Your task to perform on an android device: change the clock display to show seconds Image 0: 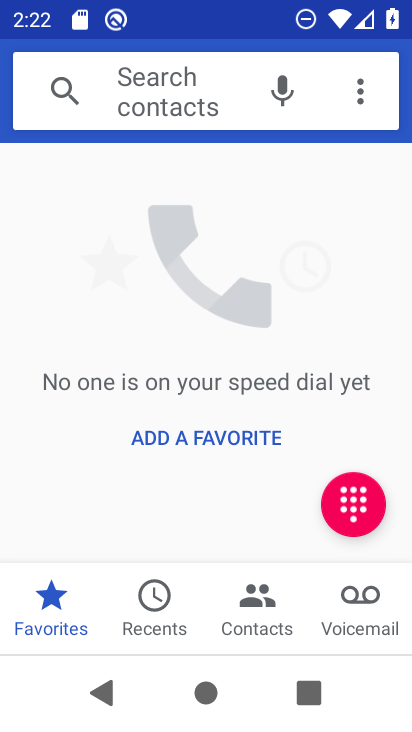
Step 0: press home button
Your task to perform on an android device: change the clock display to show seconds Image 1: 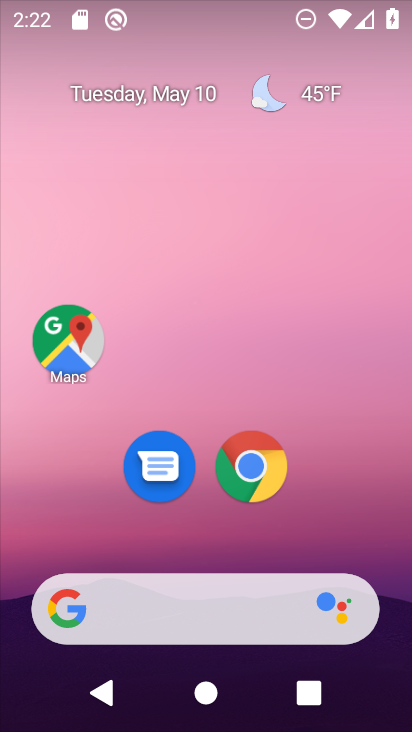
Step 1: drag from (337, 525) to (385, 18)
Your task to perform on an android device: change the clock display to show seconds Image 2: 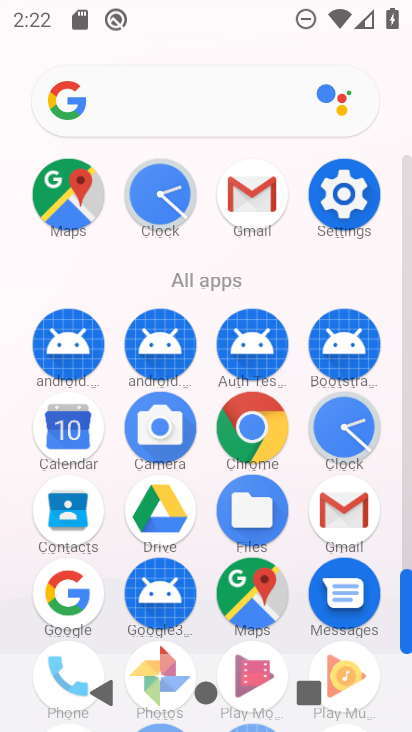
Step 2: click (326, 441)
Your task to perform on an android device: change the clock display to show seconds Image 3: 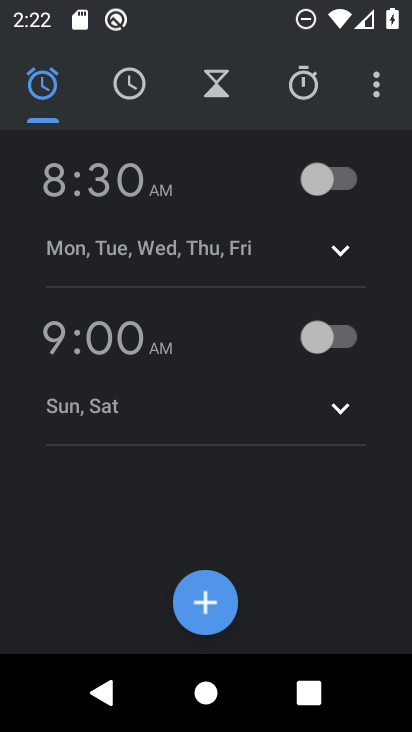
Step 3: click (380, 83)
Your task to perform on an android device: change the clock display to show seconds Image 4: 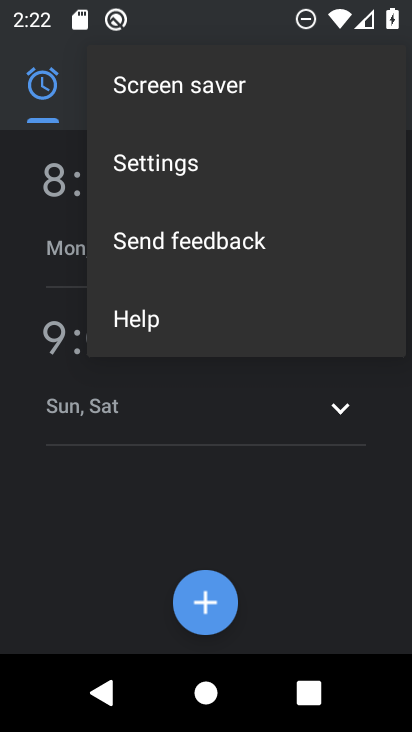
Step 4: click (246, 150)
Your task to perform on an android device: change the clock display to show seconds Image 5: 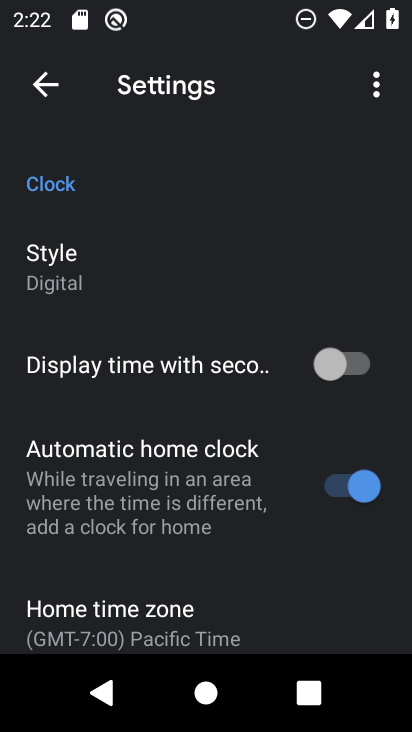
Step 5: click (358, 347)
Your task to perform on an android device: change the clock display to show seconds Image 6: 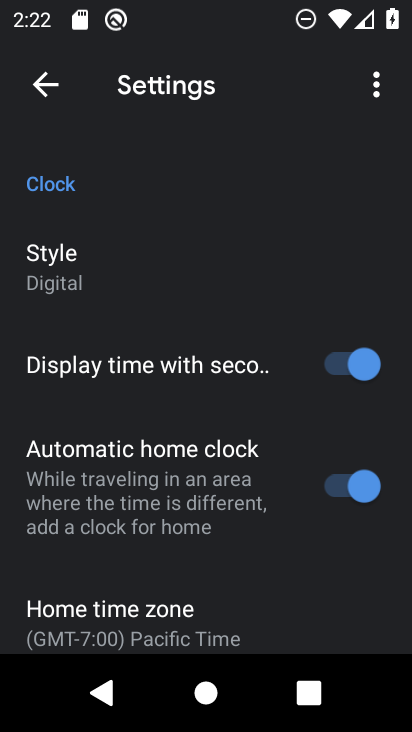
Step 6: task complete